Your task to perform on an android device: find photos in the google photos app Image 0: 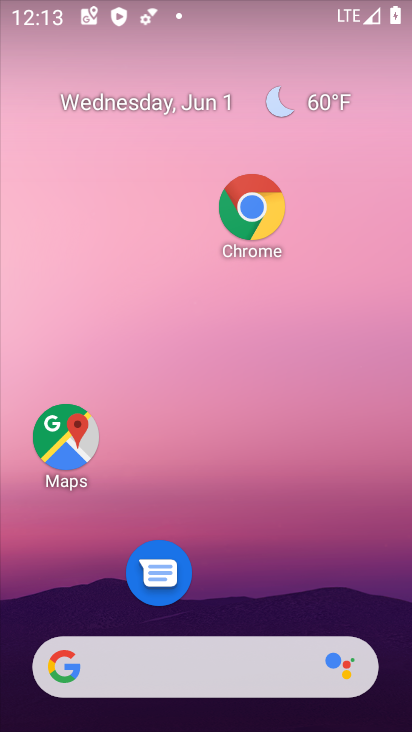
Step 0: drag from (224, 605) to (185, 222)
Your task to perform on an android device: find photos in the google photos app Image 1: 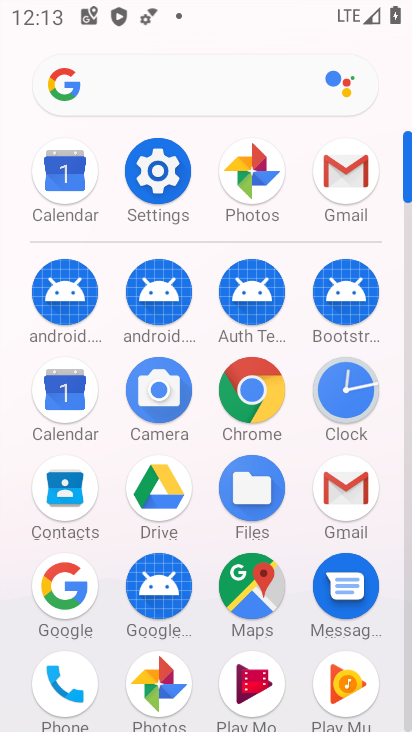
Step 1: click (224, 194)
Your task to perform on an android device: find photos in the google photos app Image 2: 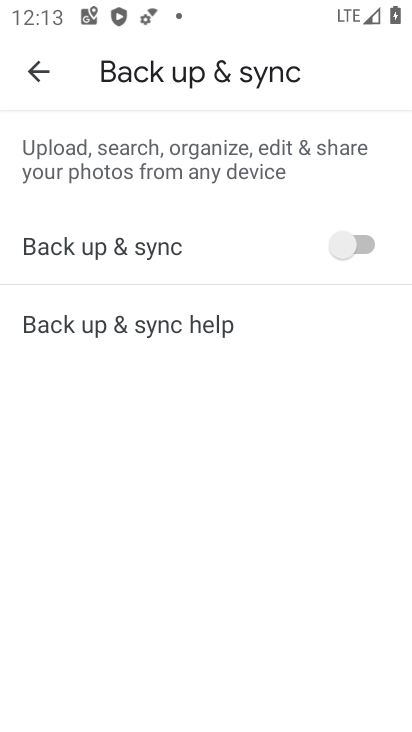
Step 2: click (47, 67)
Your task to perform on an android device: find photos in the google photos app Image 3: 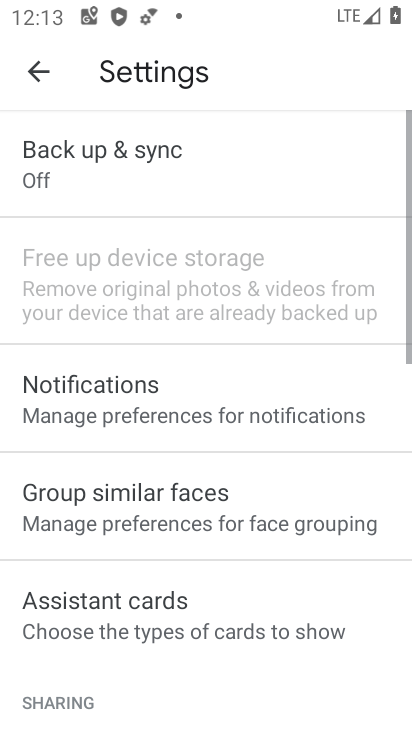
Step 3: click (53, 81)
Your task to perform on an android device: find photos in the google photos app Image 4: 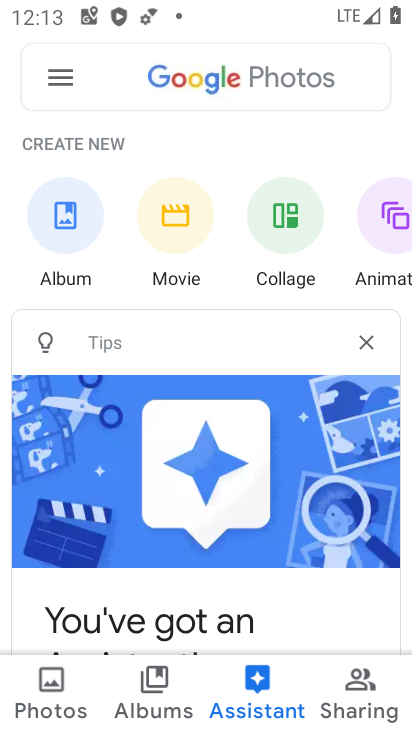
Step 4: click (215, 54)
Your task to perform on an android device: find photos in the google photos app Image 5: 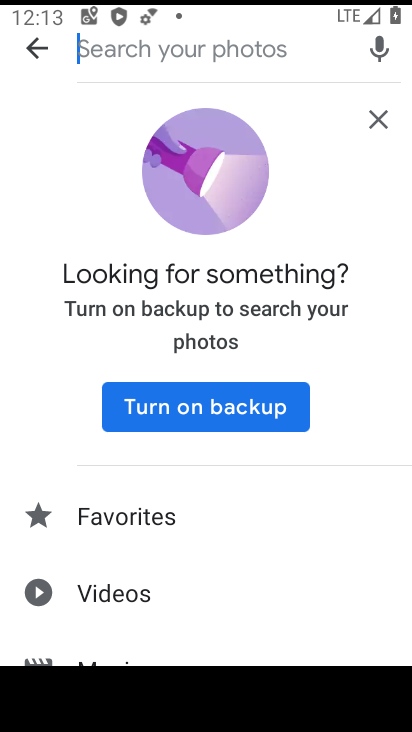
Step 5: type "aa"
Your task to perform on an android device: find photos in the google photos app Image 6: 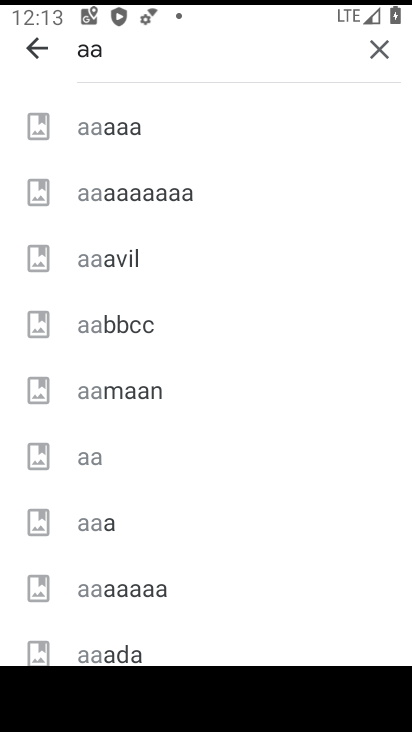
Step 6: click (191, 209)
Your task to perform on an android device: find photos in the google photos app Image 7: 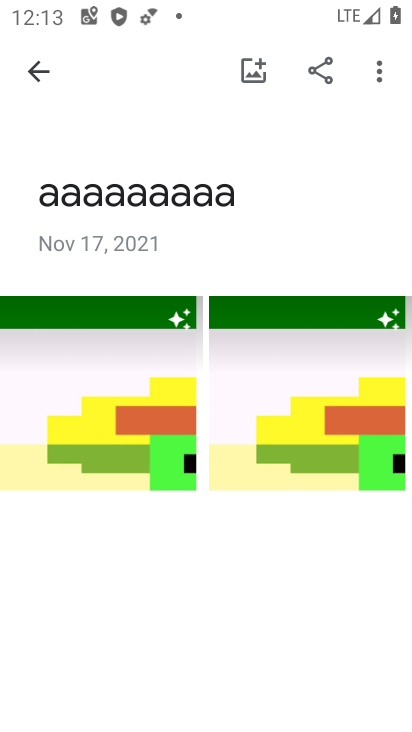
Step 7: task complete